Your task to perform on an android device: delete a single message in the gmail app Image 0: 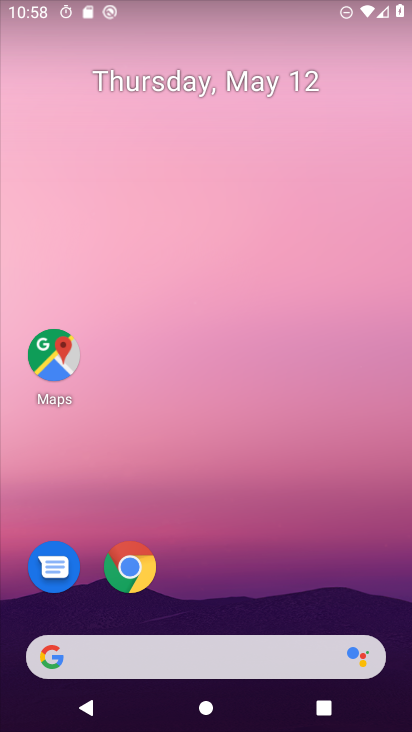
Step 0: drag from (225, 563) to (224, 254)
Your task to perform on an android device: delete a single message in the gmail app Image 1: 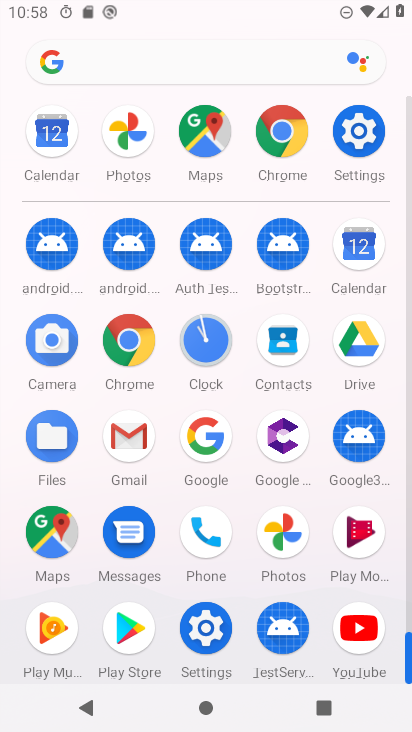
Step 1: click (136, 453)
Your task to perform on an android device: delete a single message in the gmail app Image 2: 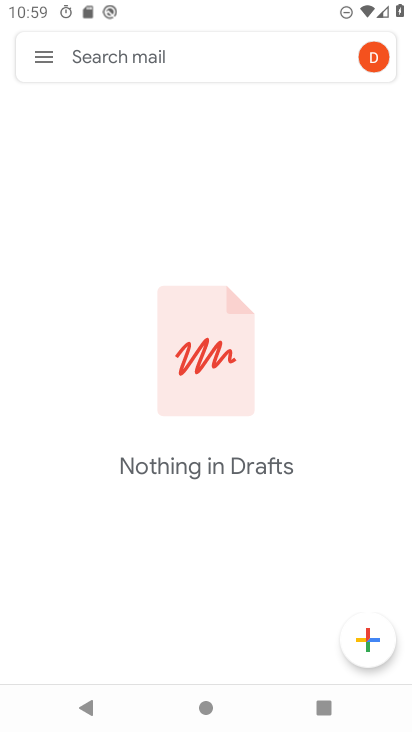
Step 2: click (45, 61)
Your task to perform on an android device: delete a single message in the gmail app Image 3: 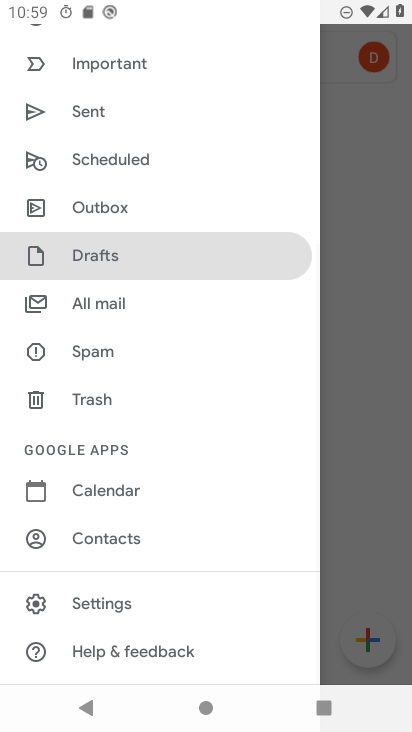
Step 3: click (124, 301)
Your task to perform on an android device: delete a single message in the gmail app Image 4: 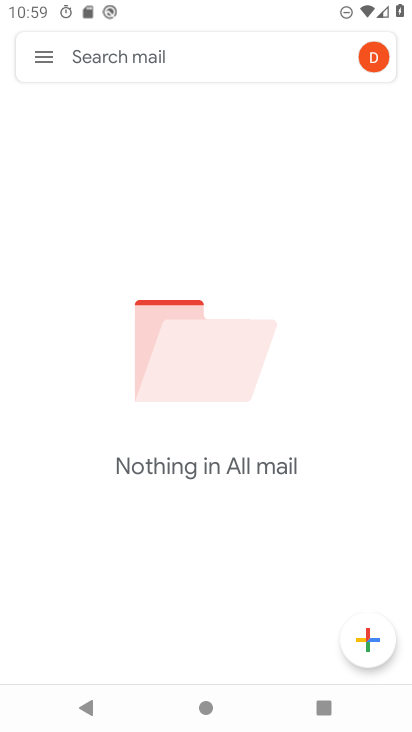
Step 4: click (36, 50)
Your task to perform on an android device: delete a single message in the gmail app Image 5: 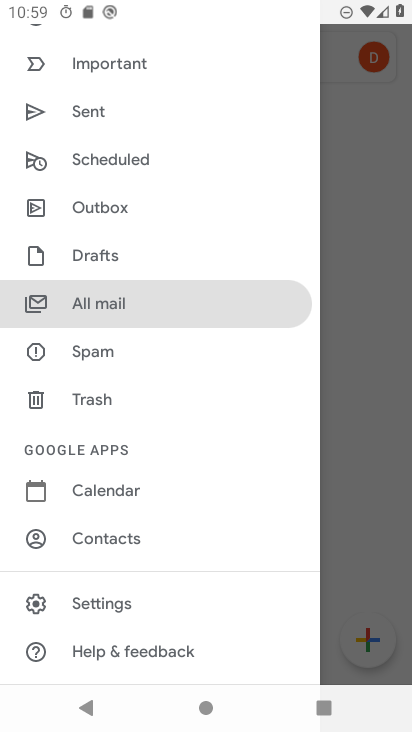
Step 5: click (96, 305)
Your task to perform on an android device: delete a single message in the gmail app Image 6: 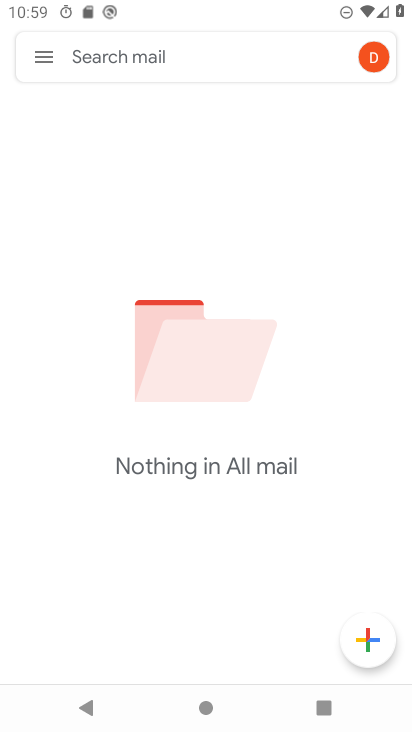
Step 6: task complete